Your task to perform on an android device: Go to CNN.com Image 0: 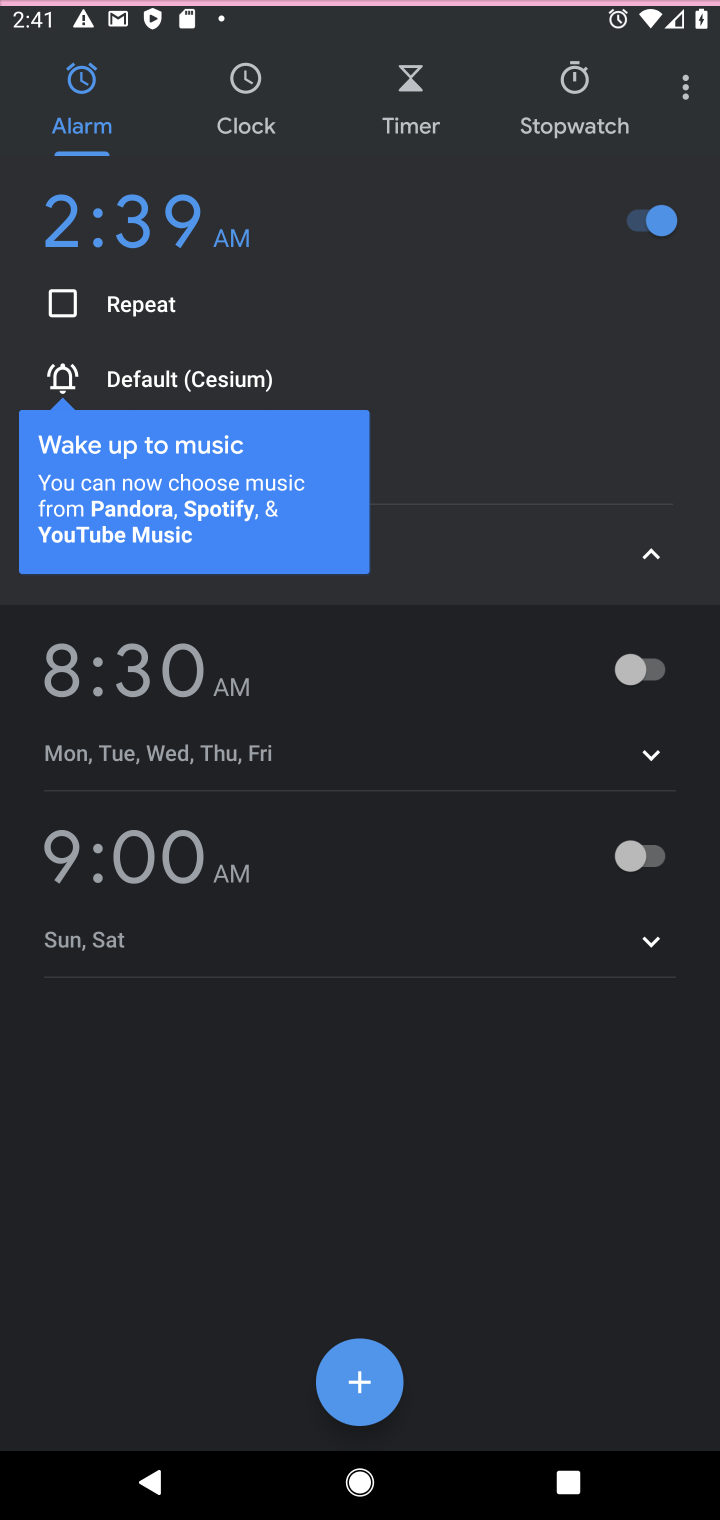
Step 0: click (275, 2)
Your task to perform on an android device: Go to CNN.com Image 1: 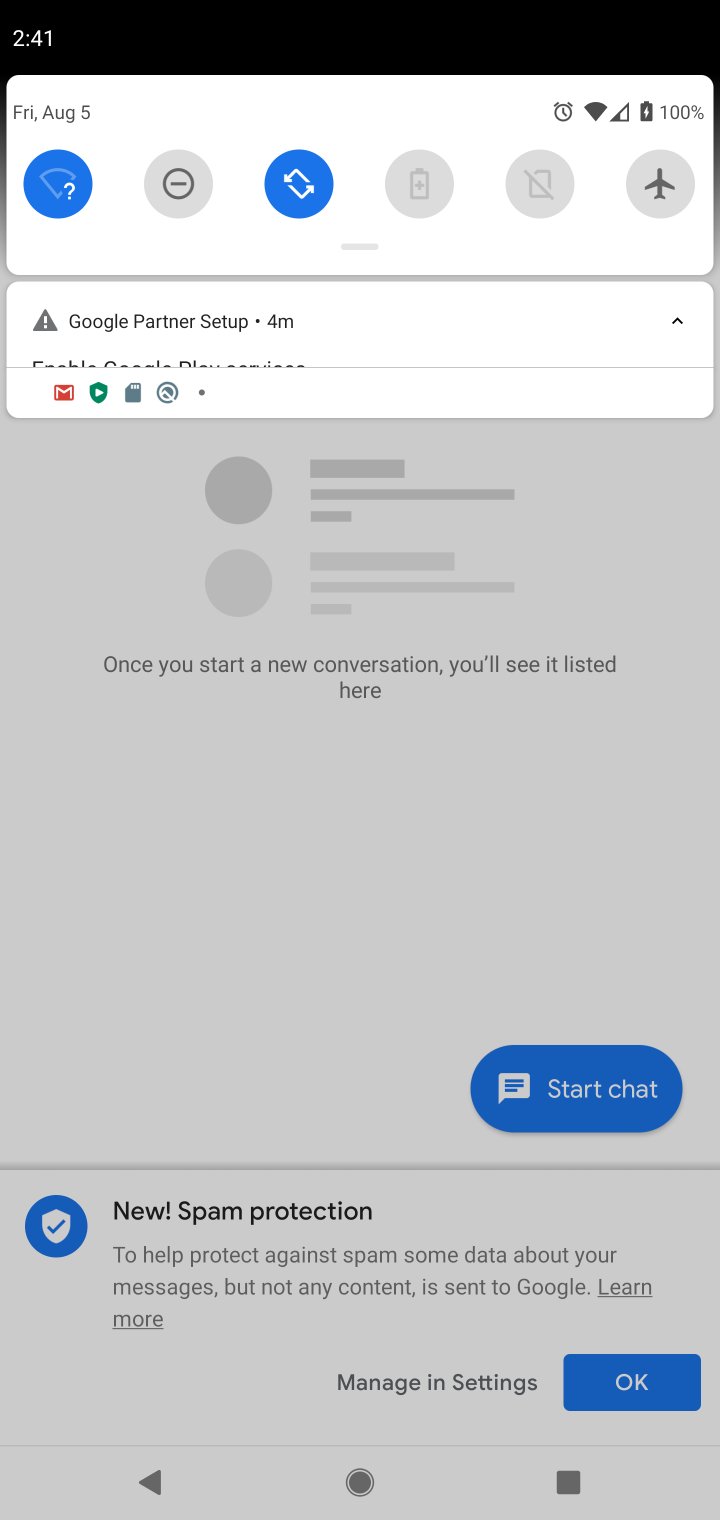
Step 1: press back button
Your task to perform on an android device: Go to CNN.com Image 2: 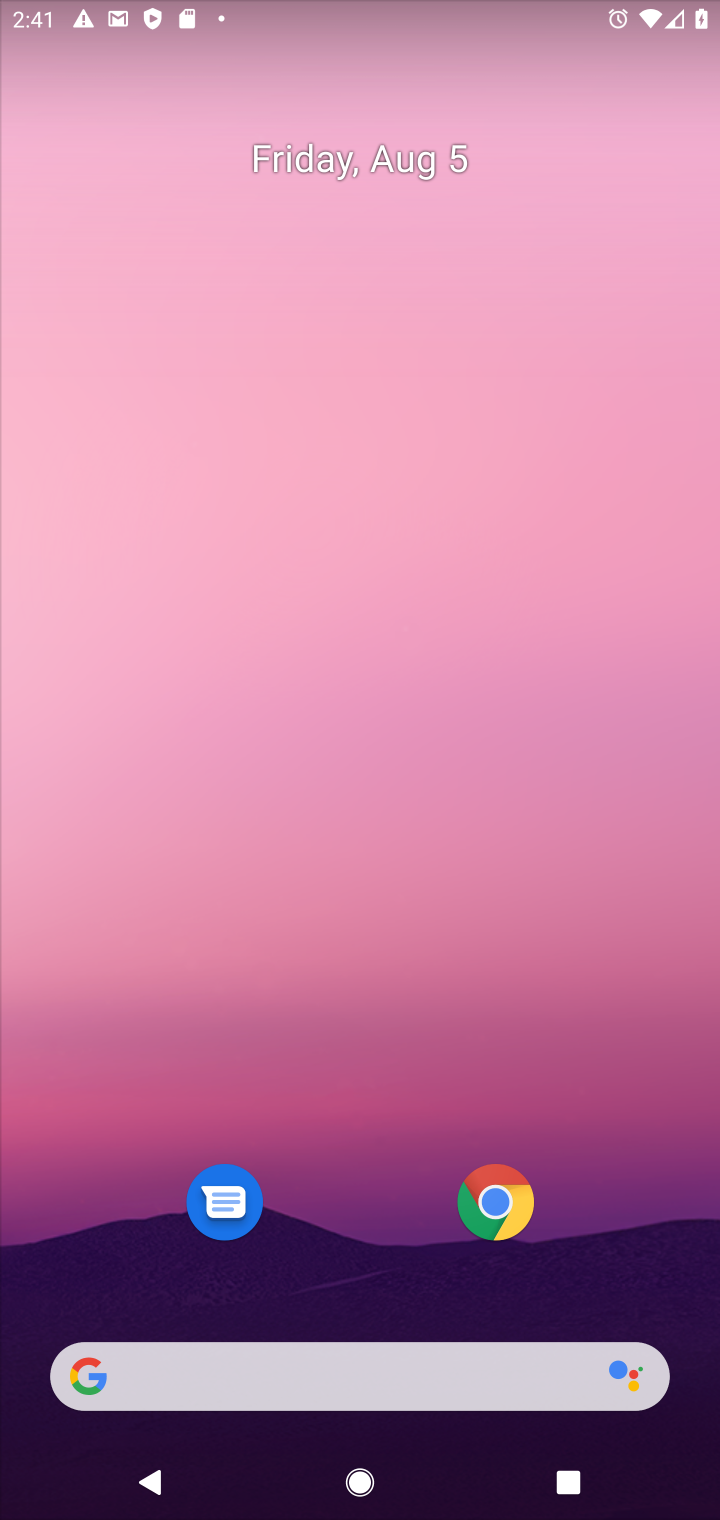
Step 2: click (528, 1217)
Your task to perform on an android device: Go to CNN.com Image 3: 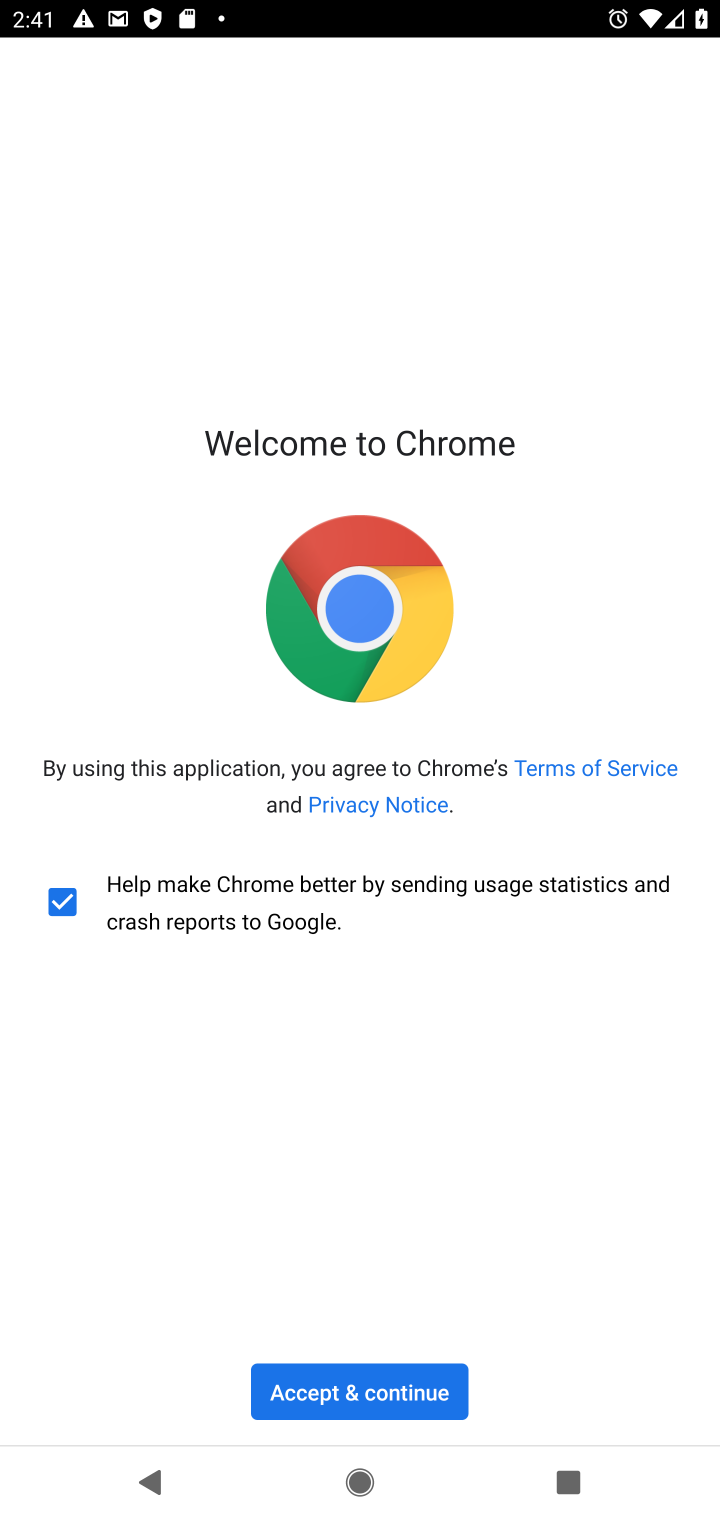
Step 3: click (441, 1392)
Your task to perform on an android device: Go to CNN.com Image 4: 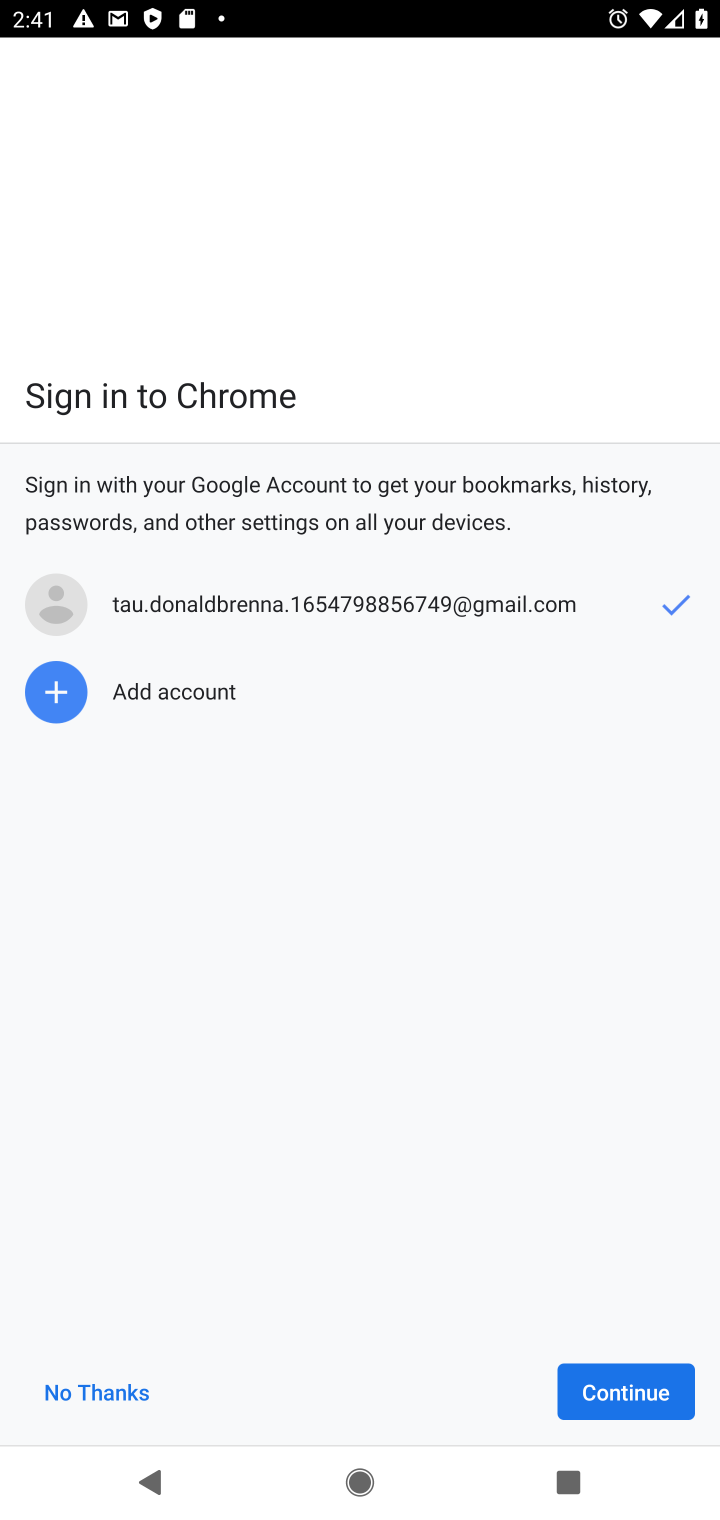
Step 4: click (631, 1394)
Your task to perform on an android device: Go to CNN.com Image 5: 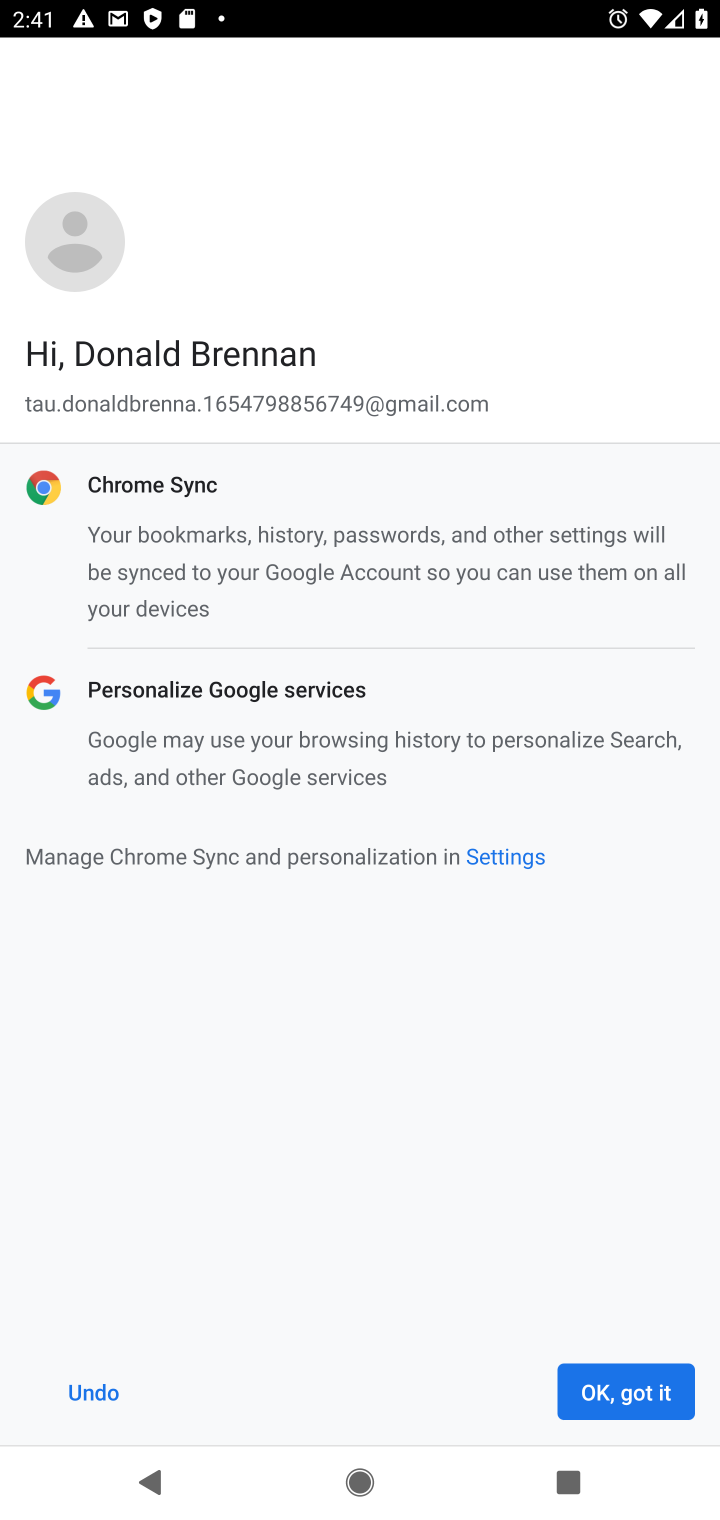
Step 5: click (673, 1395)
Your task to perform on an android device: Go to CNN.com Image 6: 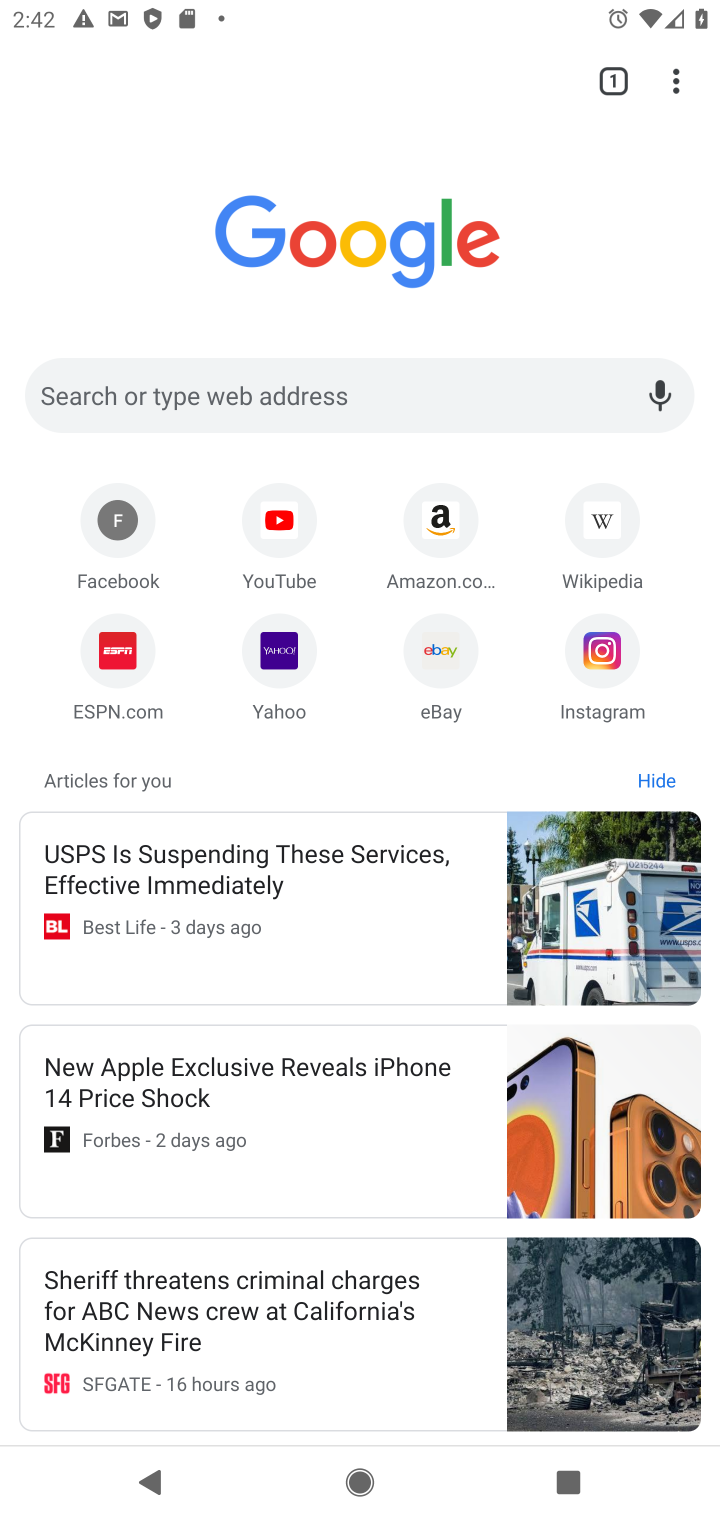
Step 6: click (273, 421)
Your task to perform on an android device: Go to CNN.com Image 7: 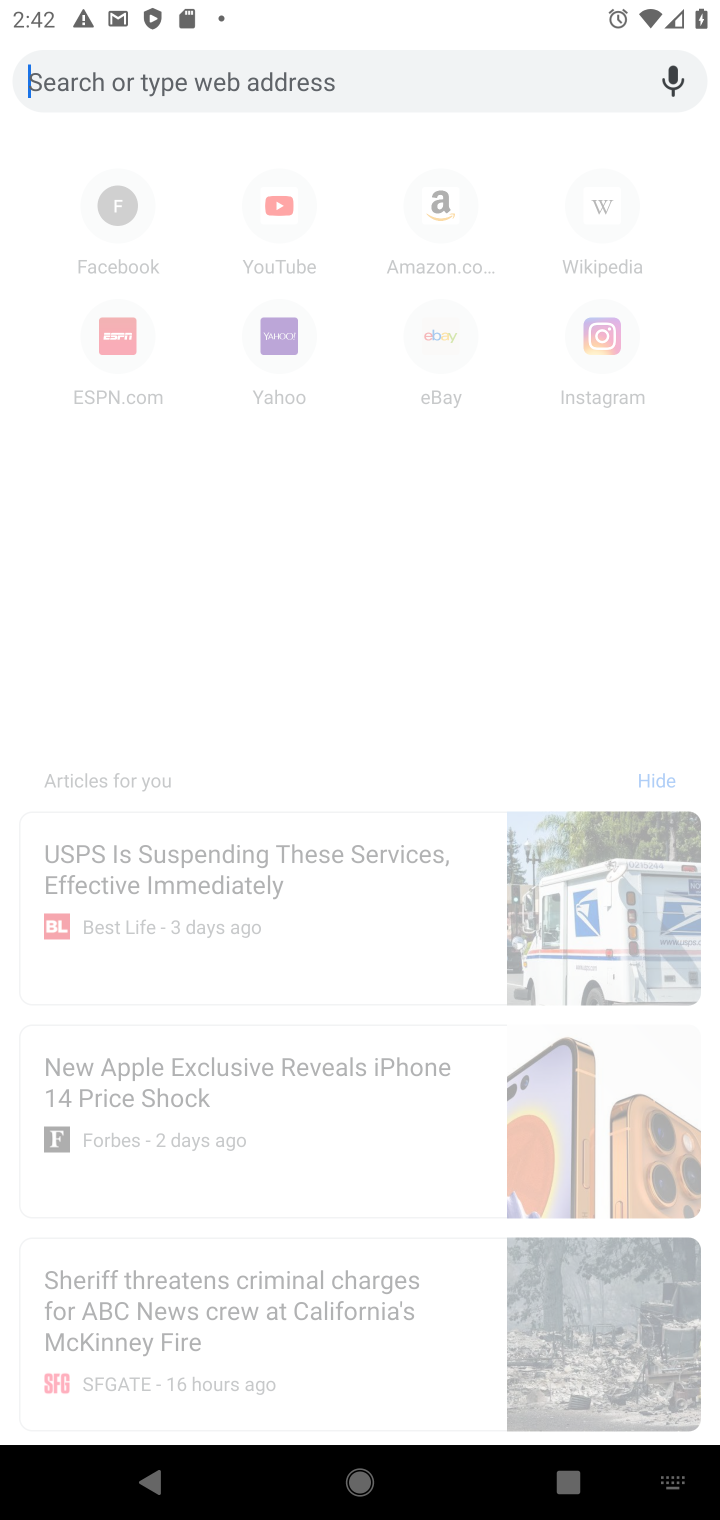
Step 7: type "CNN.com"
Your task to perform on an android device: Go to CNN.com Image 8: 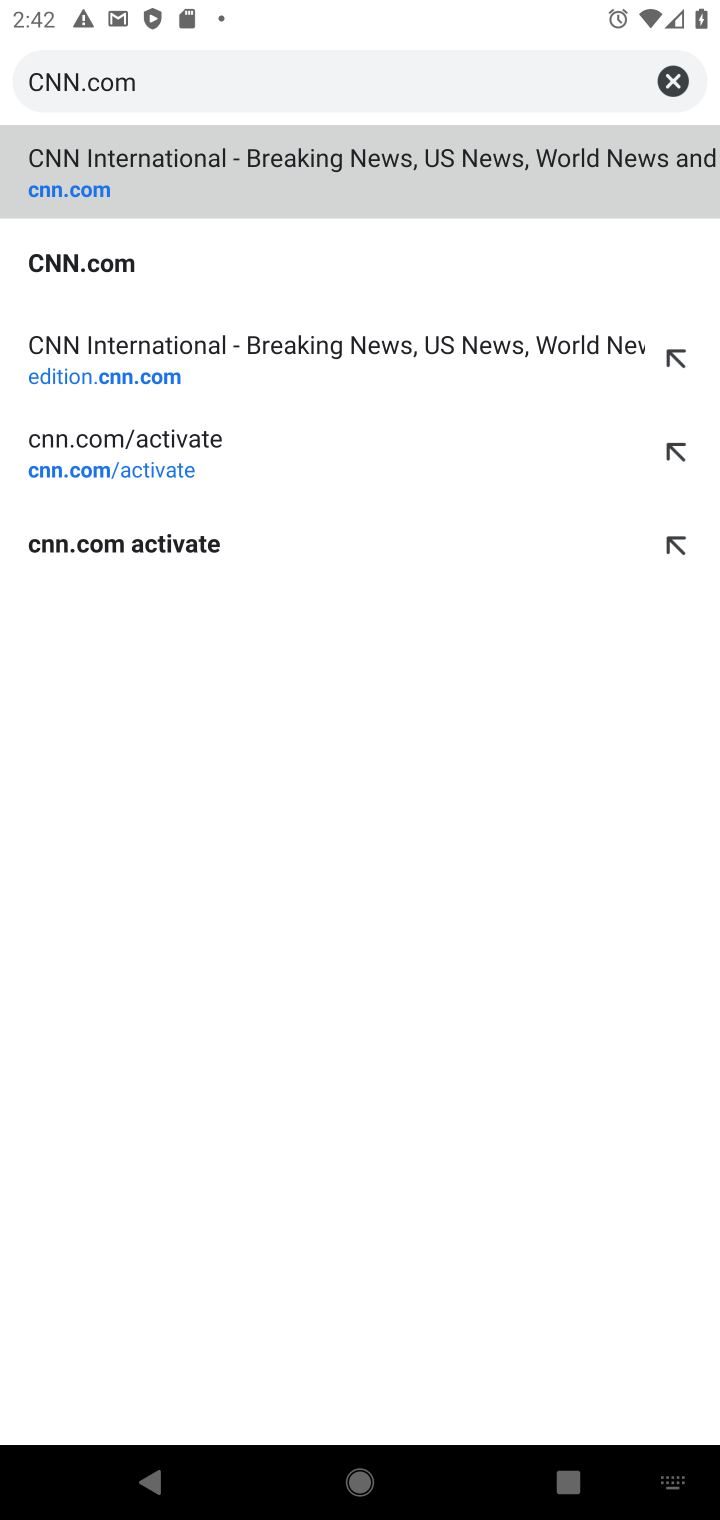
Step 8: click (121, 194)
Your task to perform on an android device: Go to CNN.com Image 9: 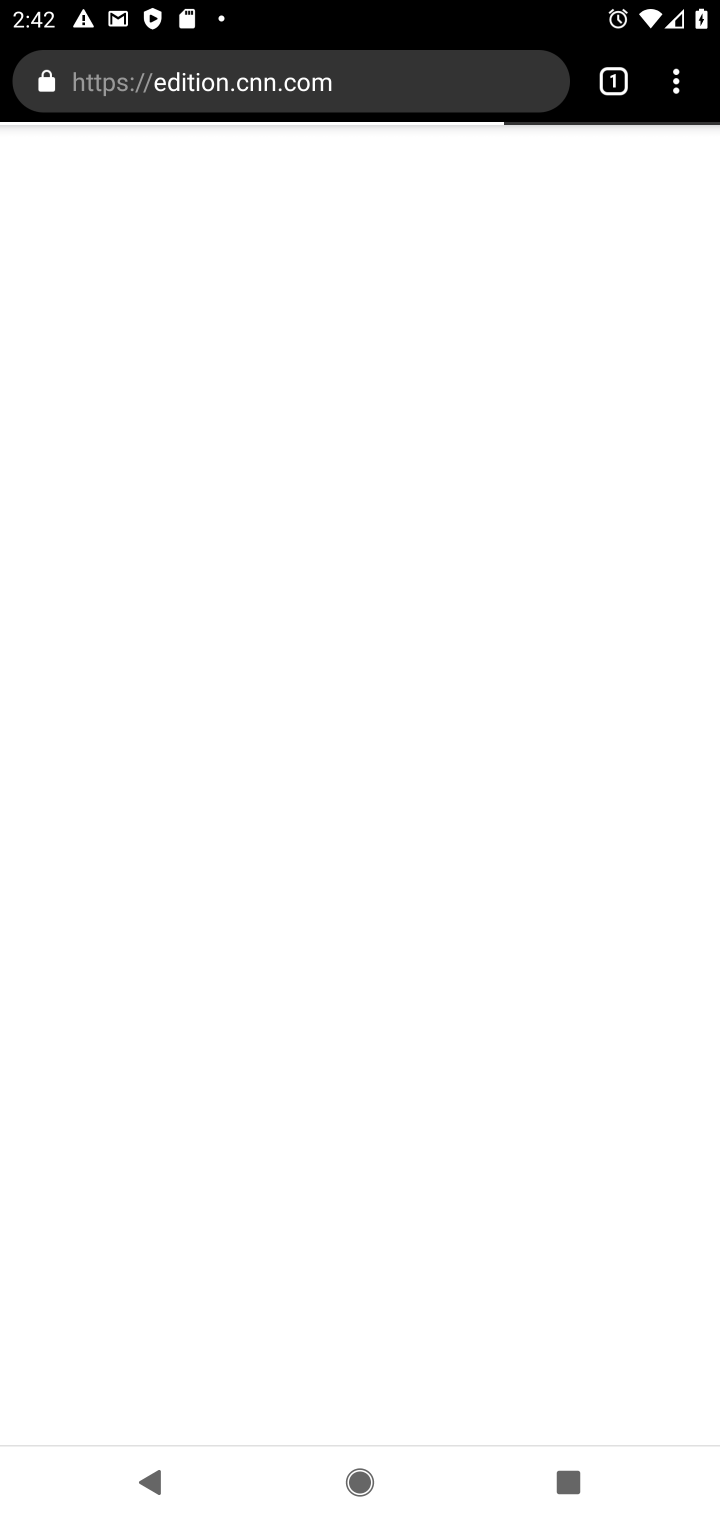
Step 9: task complete